Your task to perform on an android device: check android version Image 0: 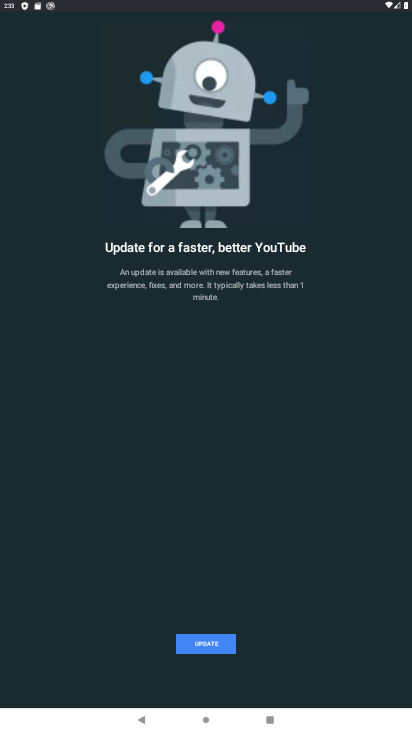
Step 0: press home button
Your task to perform on an android device: check android version Image 1: 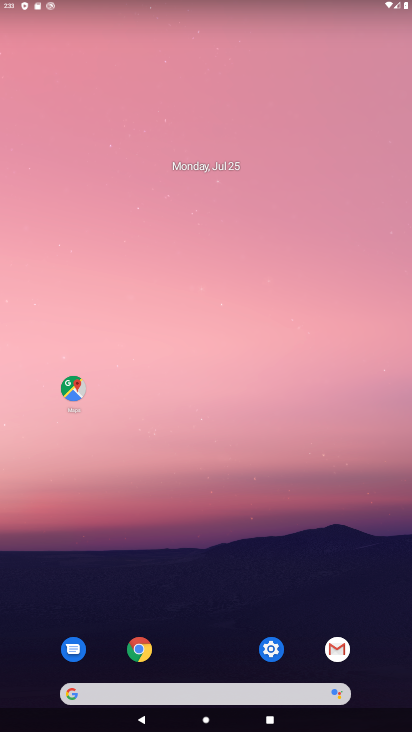
Step 1: click (280, 641)
Your task to perform on an android device: check android version Image 2: 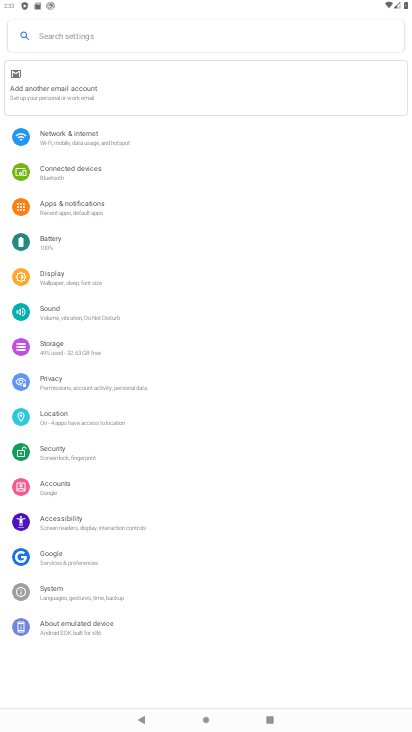
Step 2: click (69, 40)
Your task to perform on an android device: check android version Image 3: 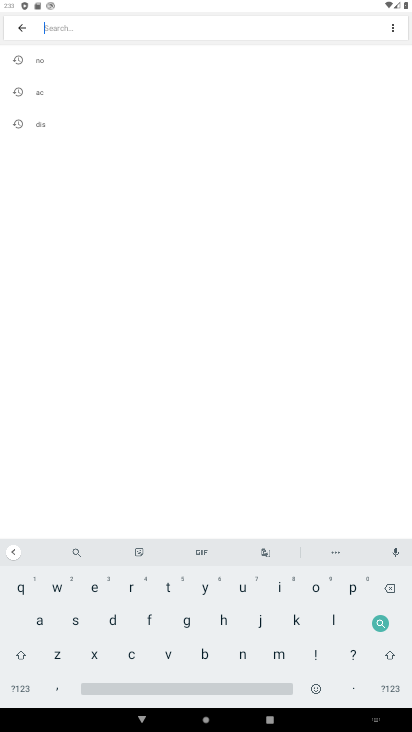
Step 3: click (31, 614)
Your task to perform on an android device: check android version Image 4: 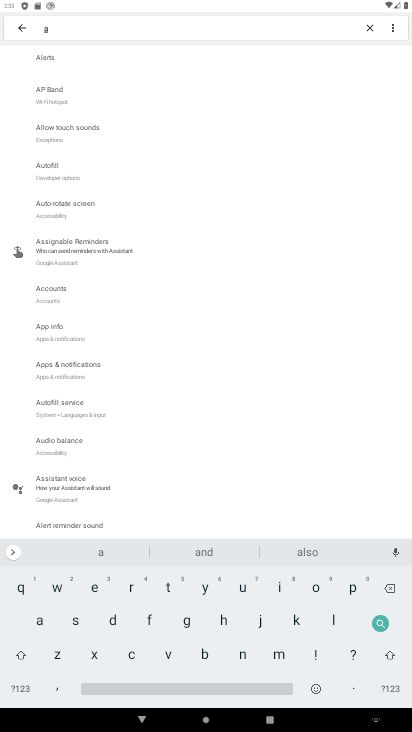
Step 4: click (239, 658)
Your task to perform on an android device: check android version Image 5: 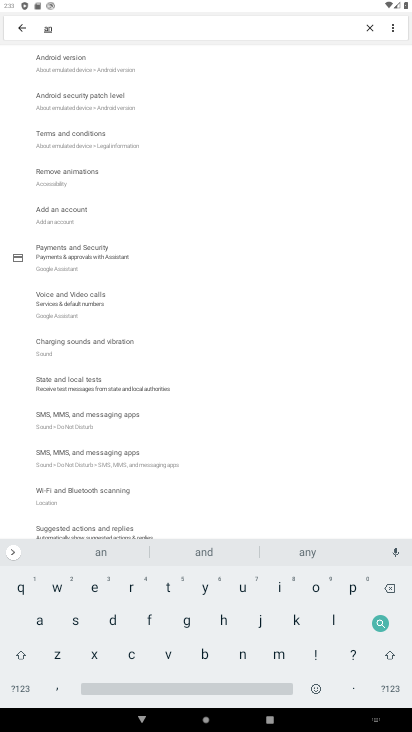
Step 5: click (87, 61)
Your task to perform on an android device: check android version Image 6: 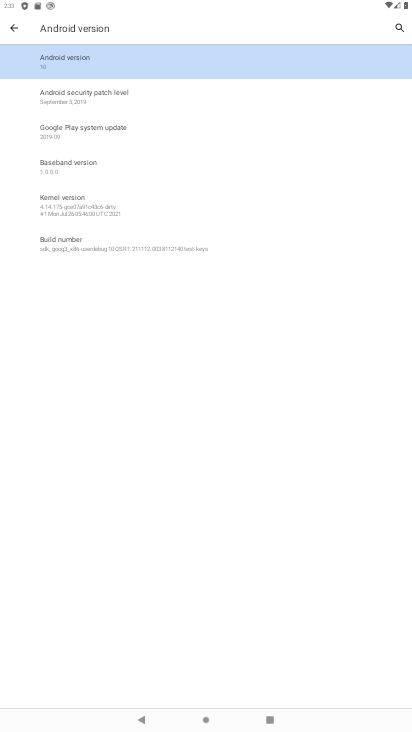
Step 6: click (88, 60)
Your task to perform on an android device: check android version Image 7: 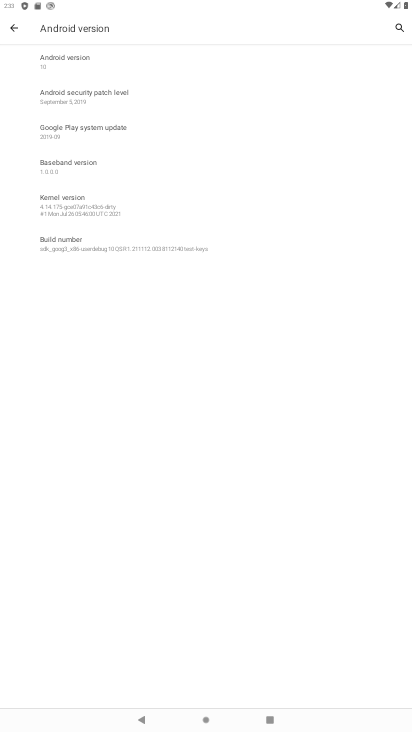
Step 7: task complete